Your task to perform on an android device: star an email in the gmail app Image 0: 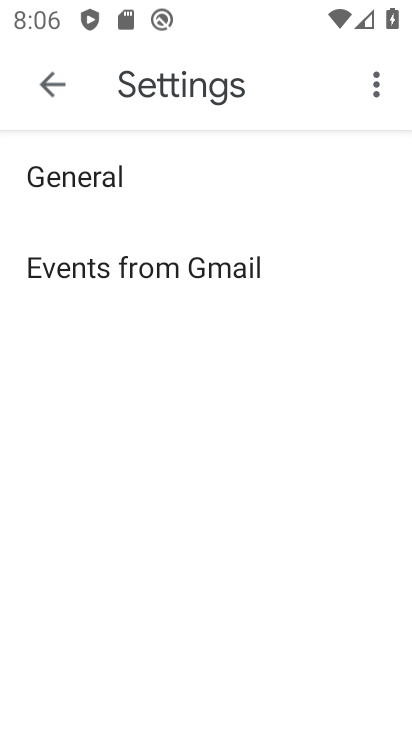
Step 0: press home button
Your task to perform on an android device: star an email in the gmail app Image 1: 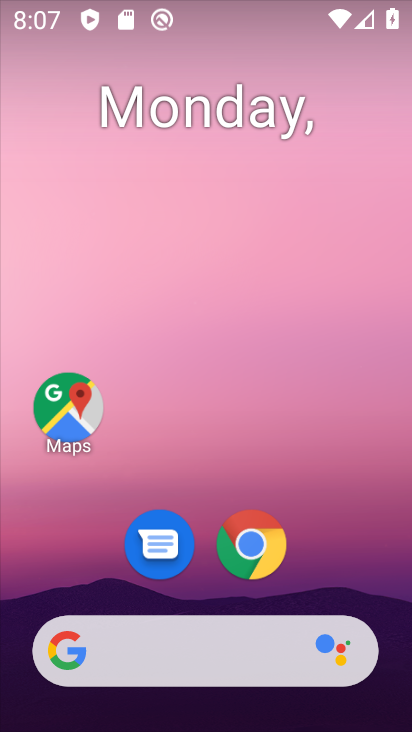
Step 1: drag from (211, 614) to (197, 7)
Your task to perform on an android device: star an email in the gmail app Image 2: 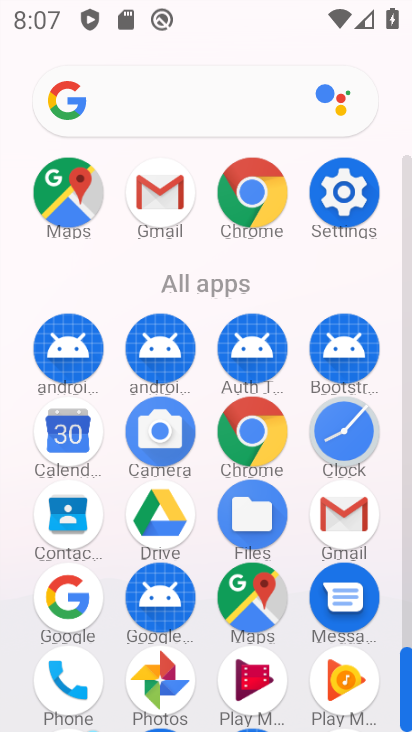
Step 2: click (338, 513)
Your task to perform on an android device: star an email in the gmail app Image 3: 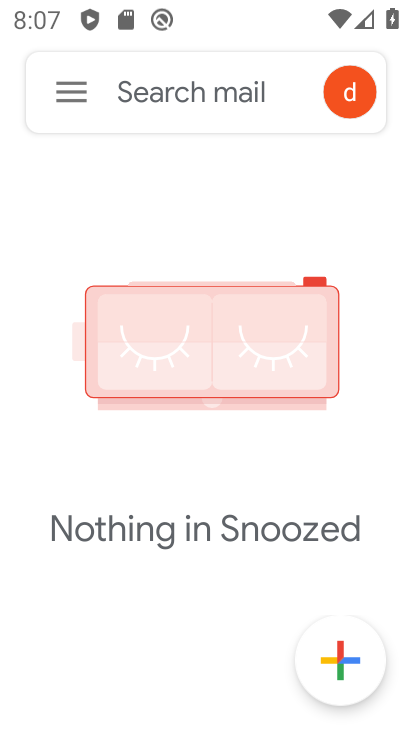
Step 3: click (65, 85)
Your task to perform on an android device: star an email in the gmail app Image 4: 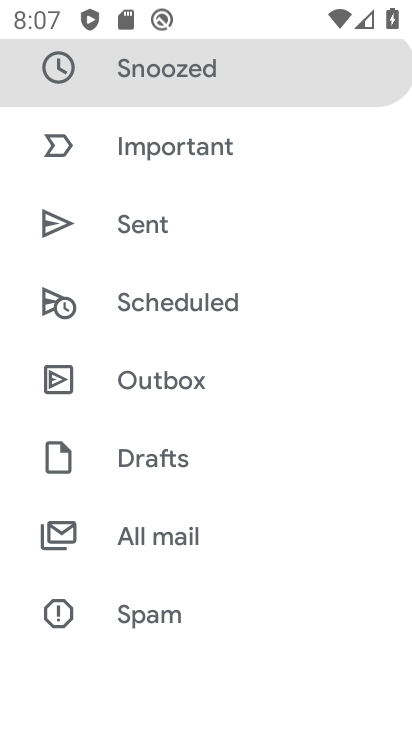
Step 4: drag from (201, 416) to (164, 84)
Your task to perform on an android device: star an email in the gmail app Image 5: 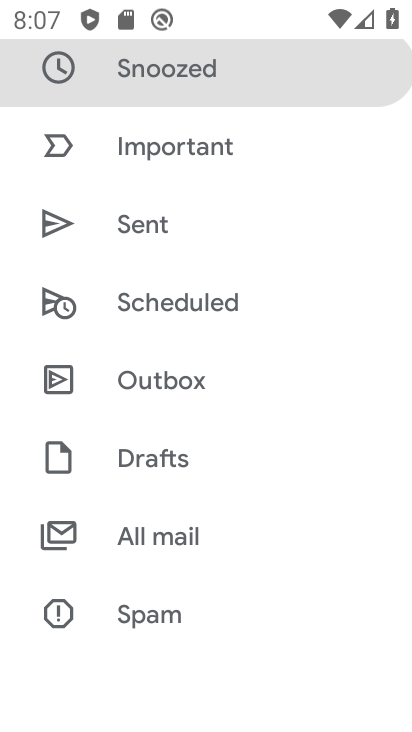
Step 5: click (170, 531)
Your task to perform on an android device: star an email in the gmail app Image 6: 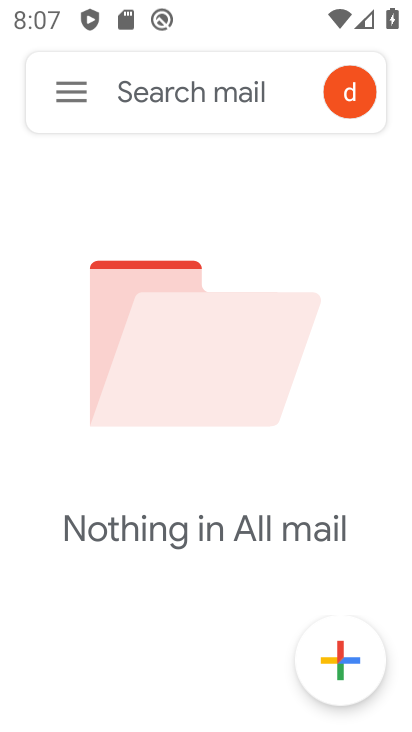
Step 6: task complete